Your task to perform on an android device: Open notification settings Image 0: 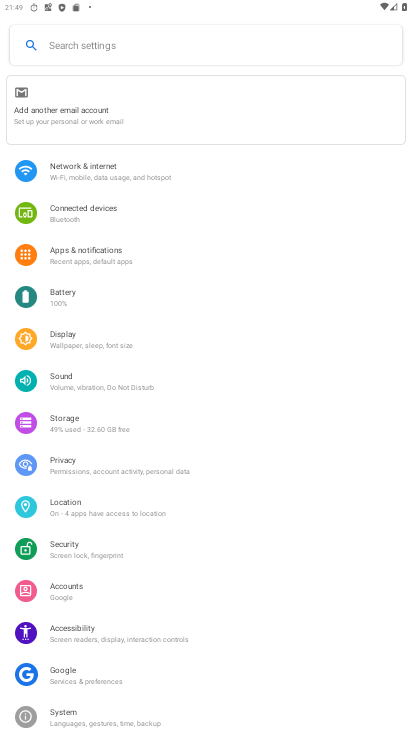
Step 0: click (142, 267)
Your task to perform on an android device: Open notification settings Image 1: 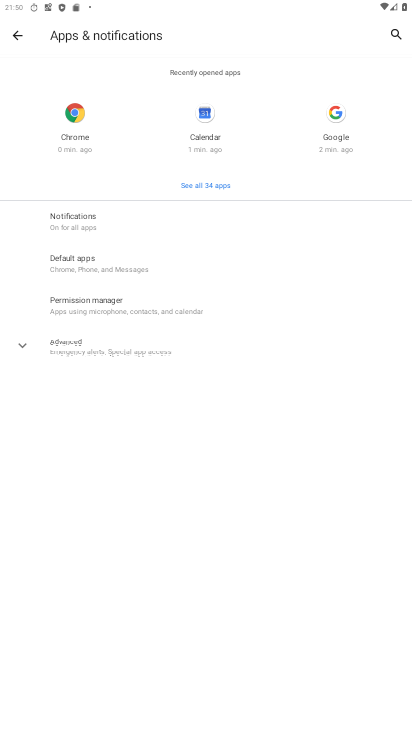
Step 1: click (113, 235)
Your task to perform on an android device: Open notification settings Image 2: 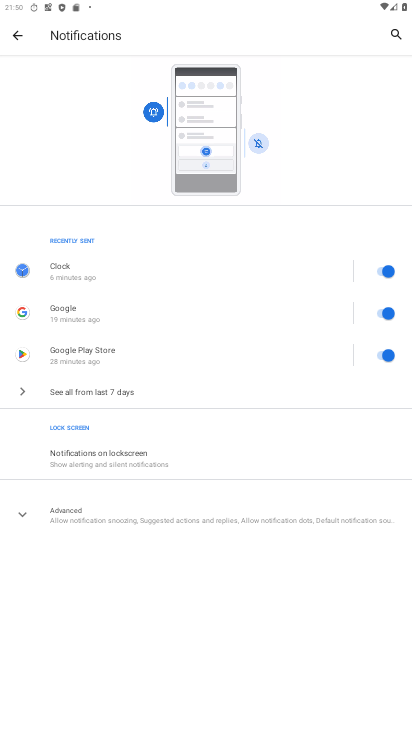
Step 2: task complete